Your task to perform on an android device: Search for a sofa on article.com Image 0: 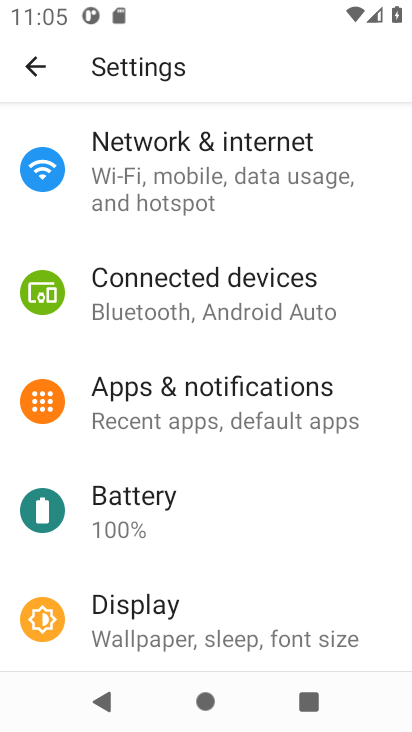
Step 0: press home button
Your task to perform on an android device: Search for a sofa on article.com Image 1: 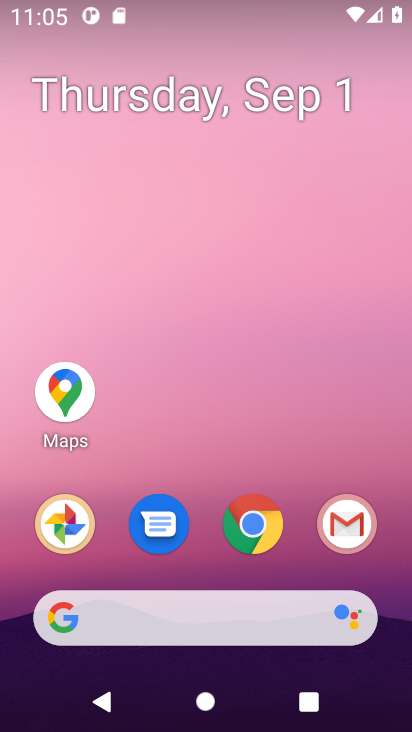
Step 1: click (237, 629)
Your task to perform on an android device: Search for a sofa on article.com Image 2: 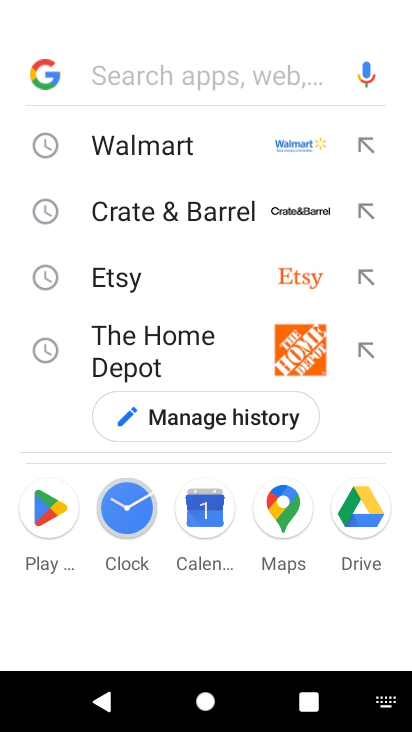
Step 2: press enter
Your task to perform on an android device: Search for a sofa on article.com Image 3: 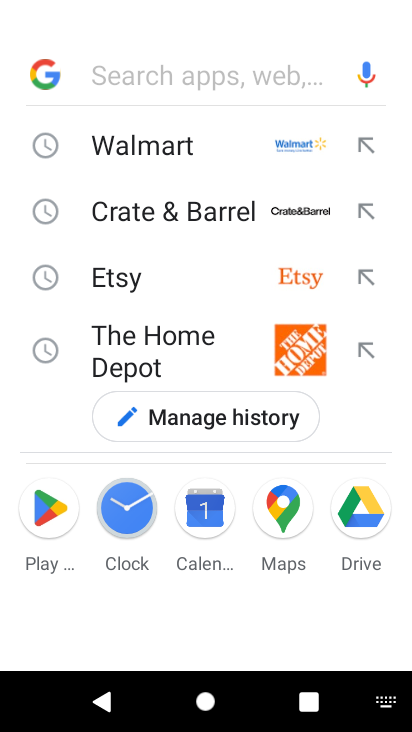
Step 3: type "article.com"
Your task to perform on an android device: Search for a sofa on article.com Image 4: 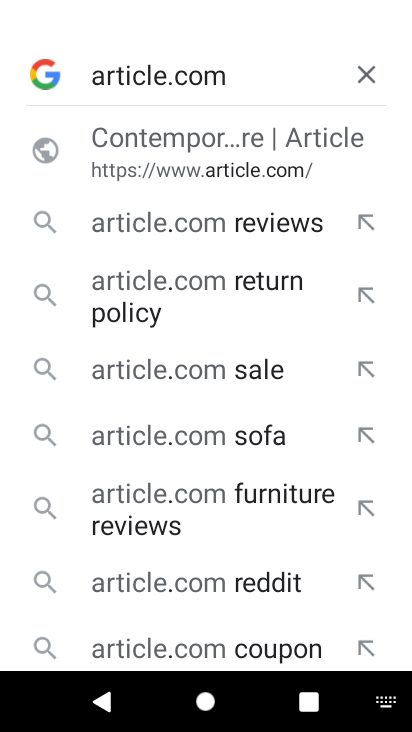
Step 4: click (251, 159)
Your task to perform on an android device: Search for a sofa on article.com Image 5: 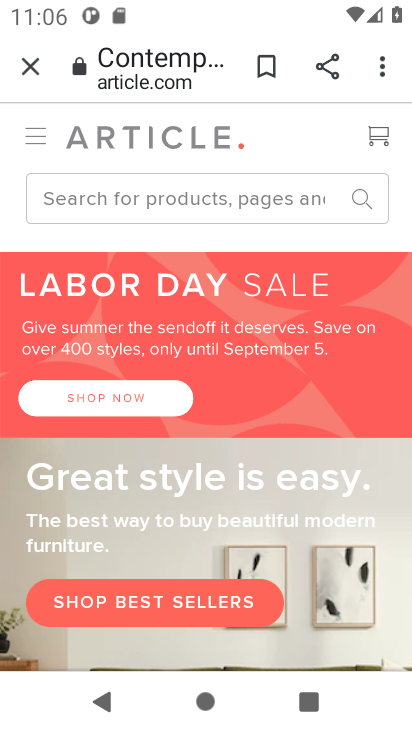
Step 5: click (258, 194)
Your task to perform on an android device: Search for a sofa on article.com Image 6: 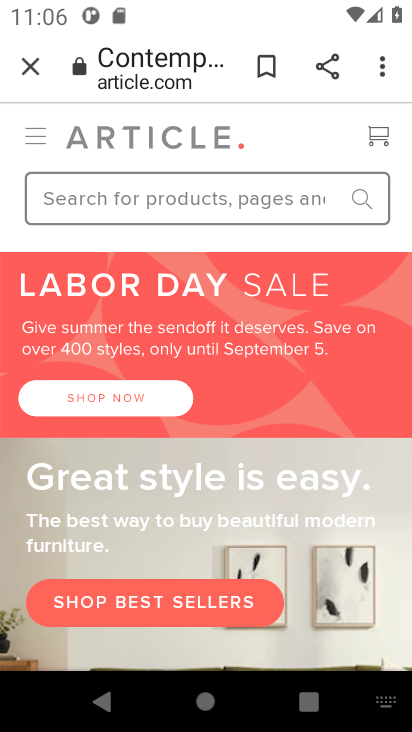
Step 6: press enter
Your task to perform on an android device: Search for a sofa on article.com Image 7: 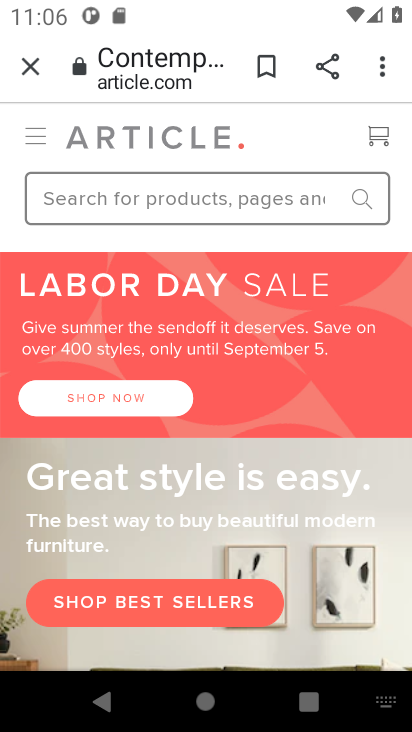
Step 7: type "sofa"
Your task to perform on an android device: Search for a sofa on article.com Image 8: 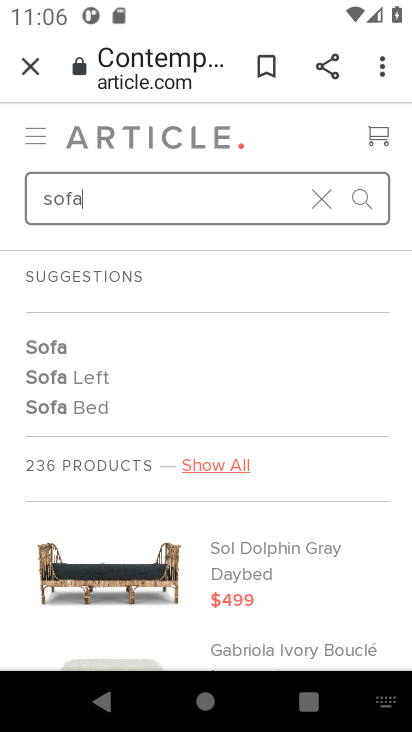
Step 8: click (50, 341)
Your task to perform on an android device: Search for a sofa on article.com Image 9: 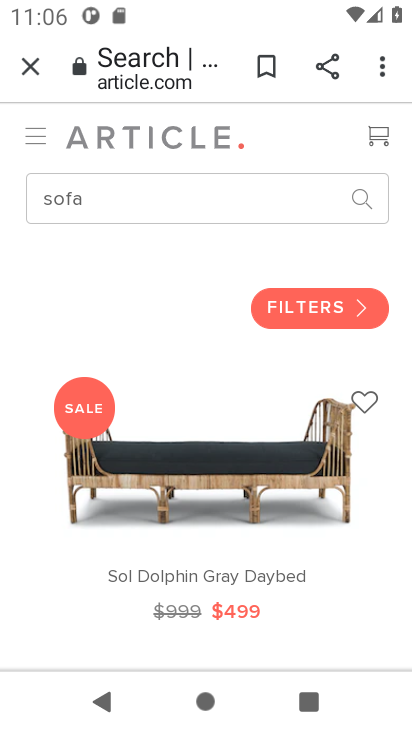
Step 9: task complete